Your task to perform on an android device: turn vacation reply on in the gmail app Image 0: 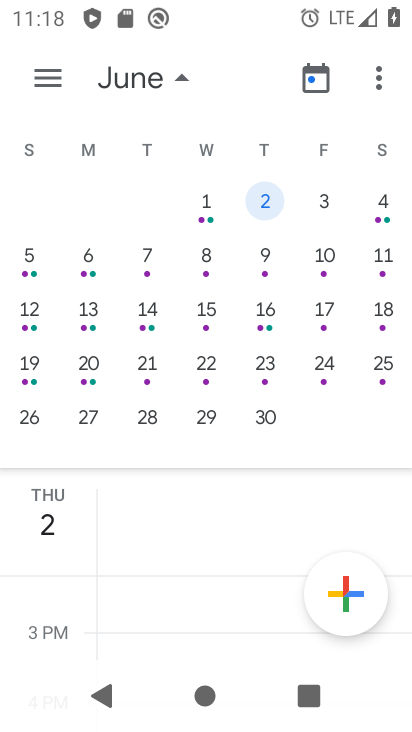
Step 0: drag from (185, 558) to (250, 145)
Your task to perform on an android device: turn vacation reply on in the gmail app Image 1: 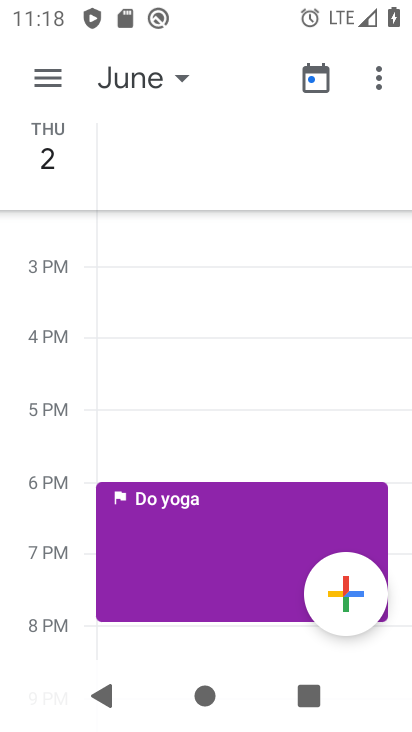
Step 1: drag from (228, 440) to (282, 145)
Your task to perform on an android device: turn vacation reply on in the gmail app Image 2: 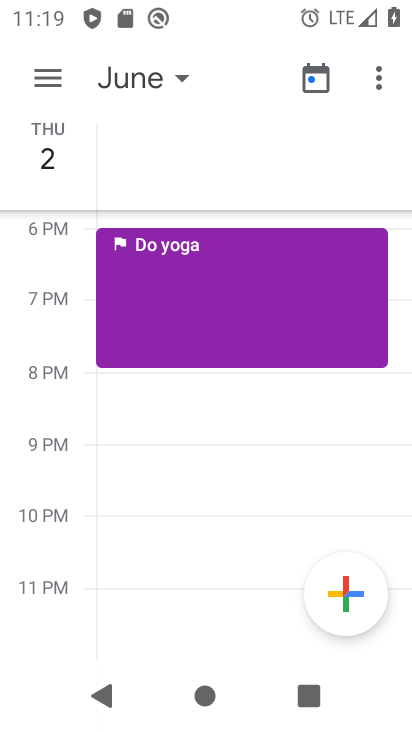
Step 2: drag from (232, 537) to (366, 56)
Your task to perform on an android device: turn vacation reply on in the gmail app Image 3: 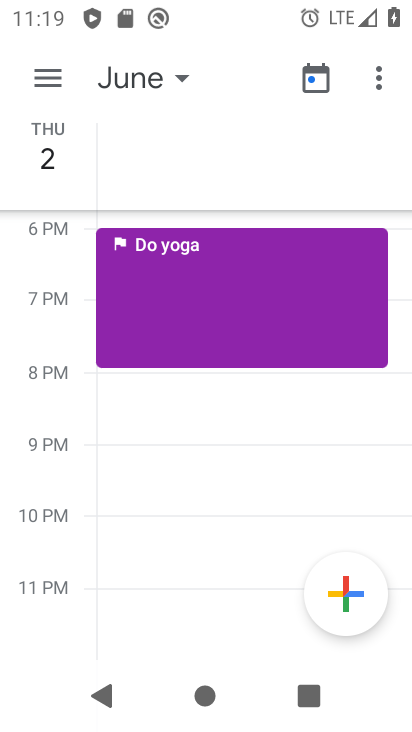
Step 3: drag from (183, 537) to (222, 36)
Your task to perform on an android device: turn vacation reply on in the gmail app Image 4: 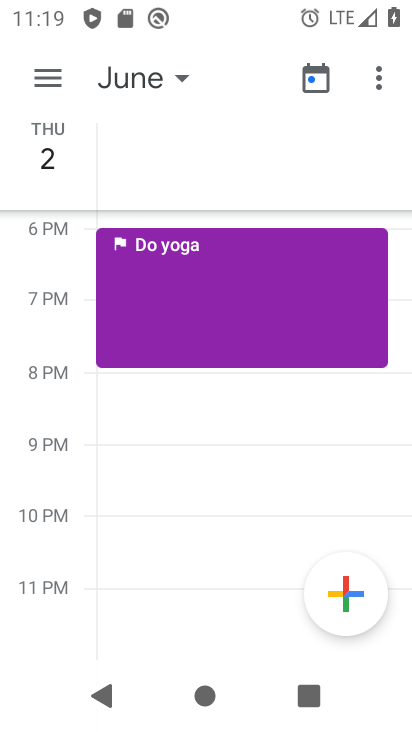
Step 4: drag from (200, 549) to (156, 4)
Your task to perform on an android device: turn vacation reply on in the gmail app Image 5: 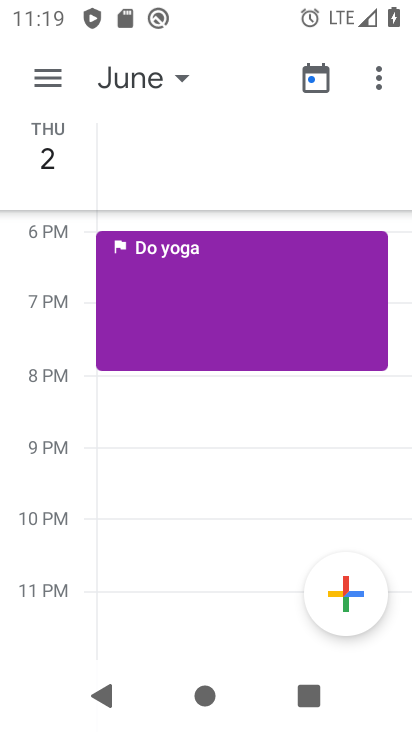
Step 5: press home button
Your task to perform on an android device: turn vacation reply on in the gmail app Image 6: 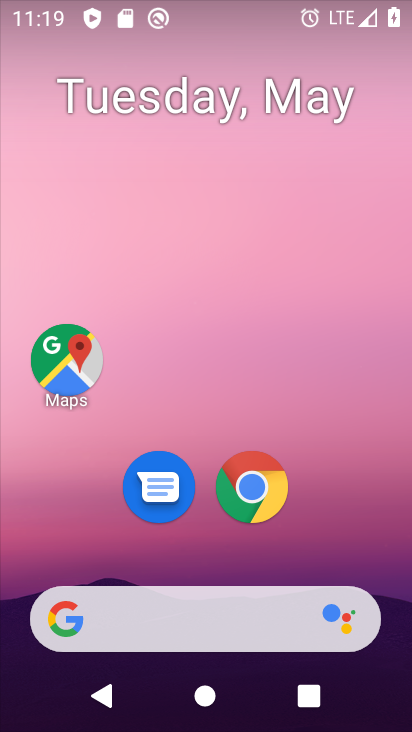
Step 6: drag from (199, 552) to (223, 103)
Your task to perform on an android device: turn vacation reply on in the gmail app Image 7: 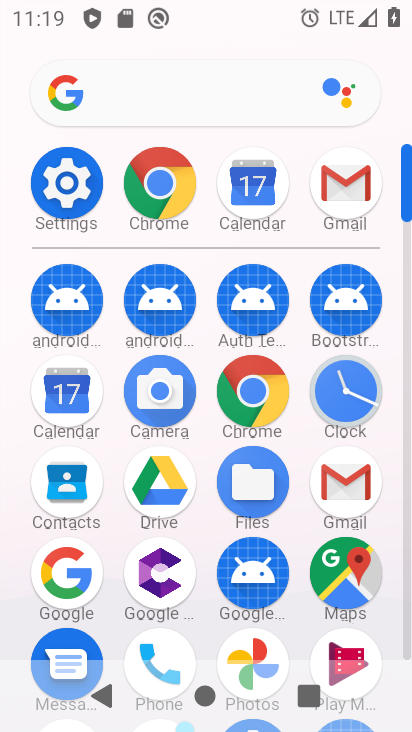
Step 7: click (323, 486)
Your task to perform on an android device: turn vacation reply on in the gmail app Image 8: 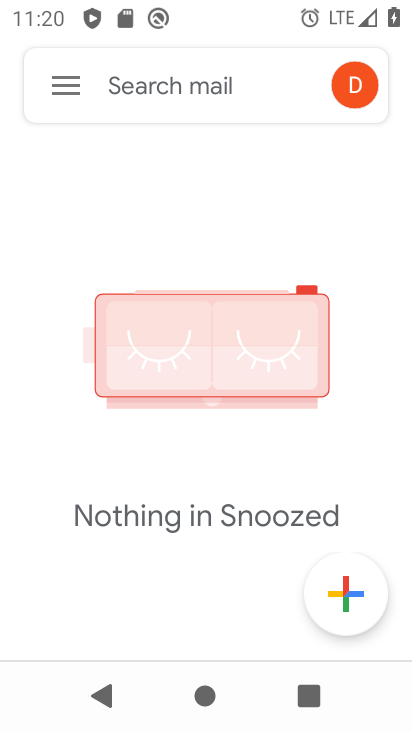
Step 8: click (63, 60)
Your task to perform on an android device: turn vacation reply on in the gmail app Image 9: 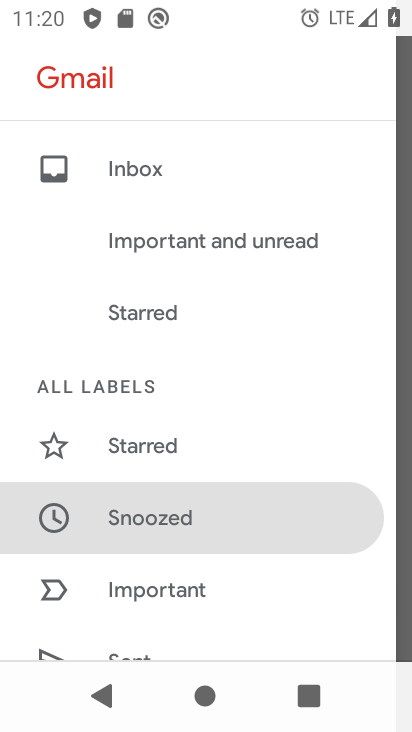
Step 9: drag from (255, 537) to (229, 20)
Your task to perform on an android device: turn vacation reply on in the gmail app Image 10: 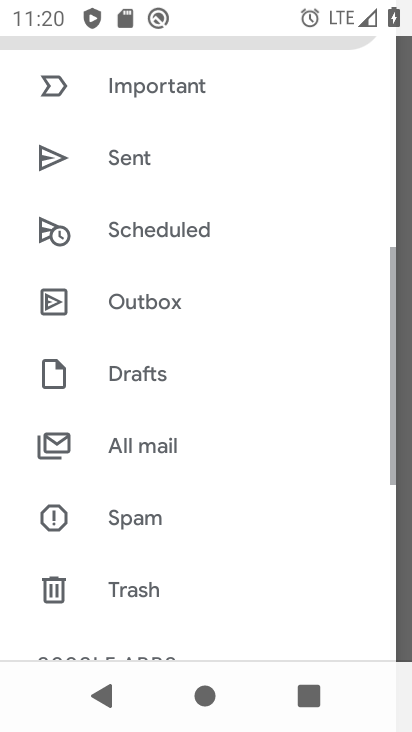
Step 10: drag from (144, 637) to (189, 10)
Your task to perform on an android device: turn vacation reply on in the gmail app Image 11: 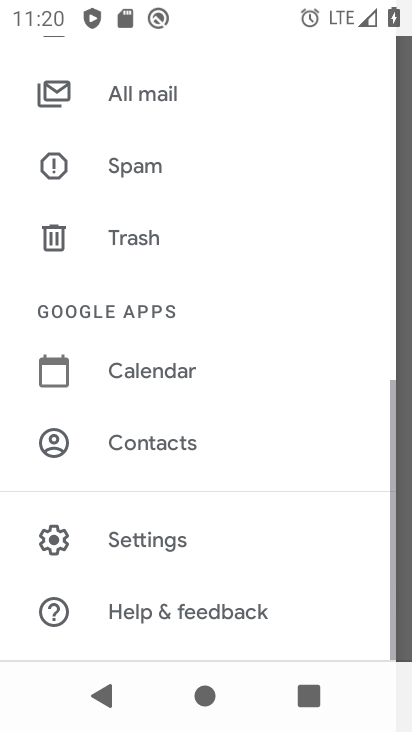
Step 11: click (120, 533)
Your task to perform on an android device: turn vacation reply on in the gmail app Image 12: 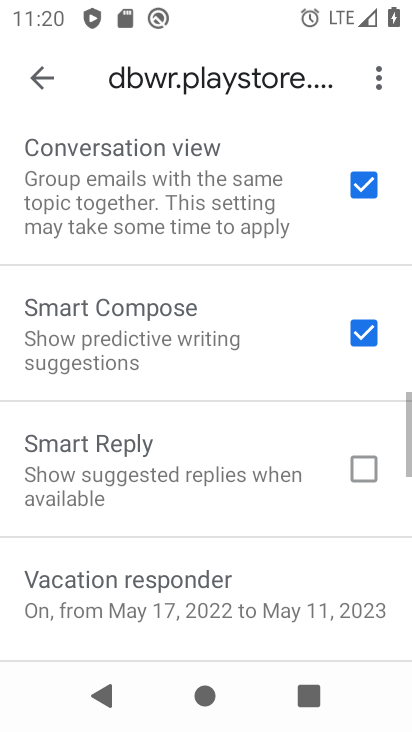
Step 12: drag from (227, 495) to (234, 115)
Your task to perform on an android device: turn vacation reply on in the gmail app Image 13: 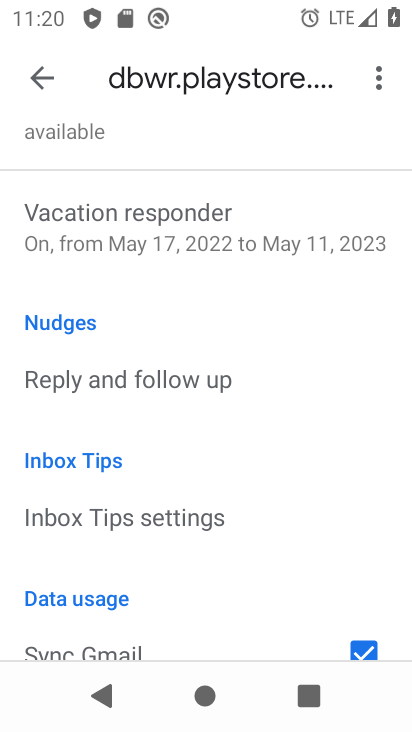
Step 13: drag from (174, 214) to (303, 728)
Your task to perform on an android device: turn vacation reply on in the gmail app Image 14: 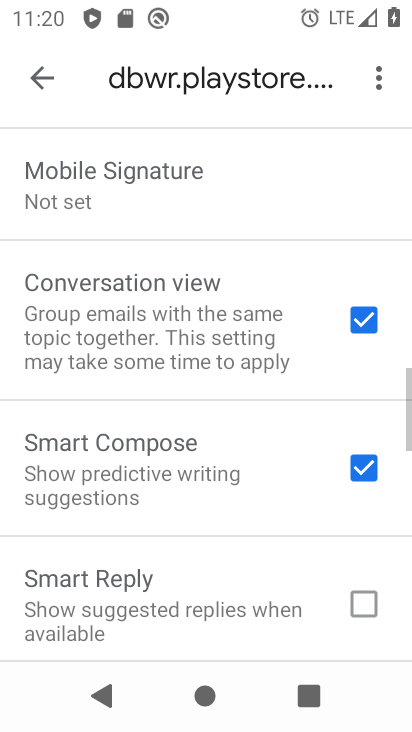
Step 14: drag from (233, 486) to (265, 264)
Your task to perform on an android device: turn vacation reply on in the gmail app Image 15: 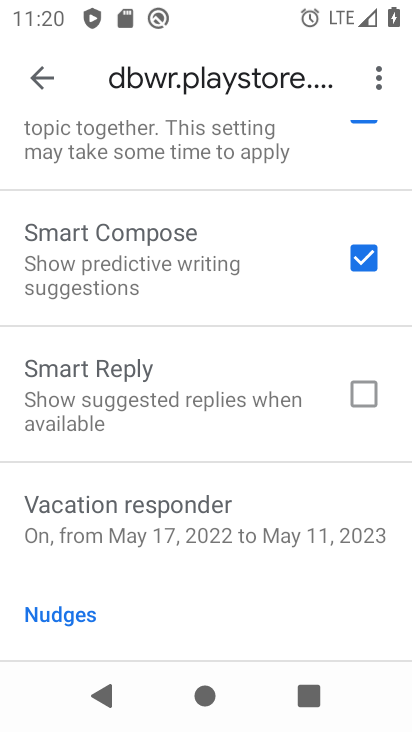
Step 15: click (178, 512)
Your task to perform on an android device: turn vacation reply on in the gmail app Image 16: 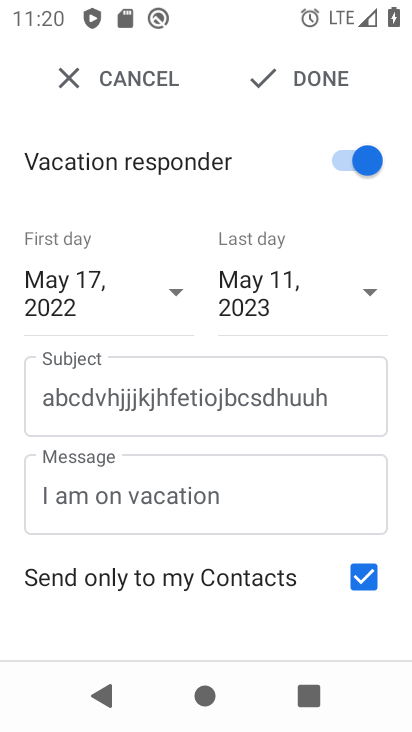
Step 16: click (307, 86)
Your task to perform on an android device: turn vacation reply on in the gmail app Image 17: 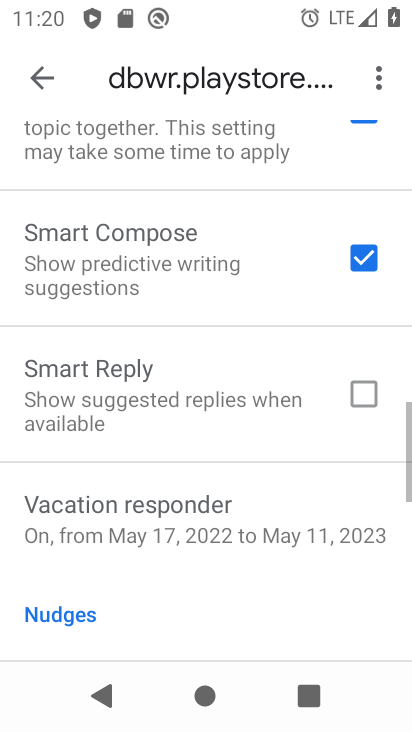
Step 17: task complete